Your task to perform on an android device: change text size in settings app Image 0: 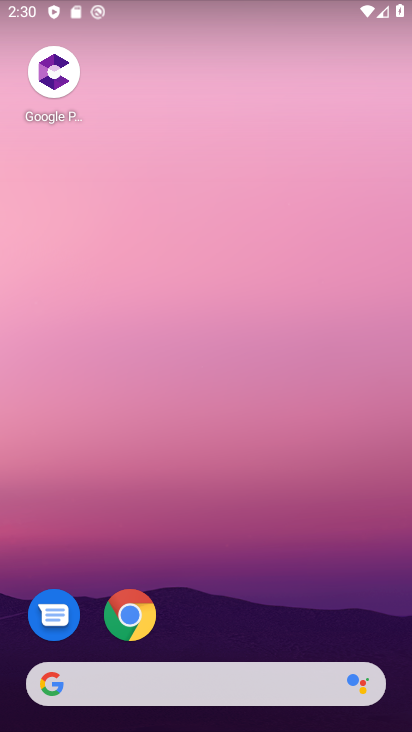
Step 0: drag from (233, 700) to (193, 197)
Your task to perform on an android device: change text size in settings app Image 1: 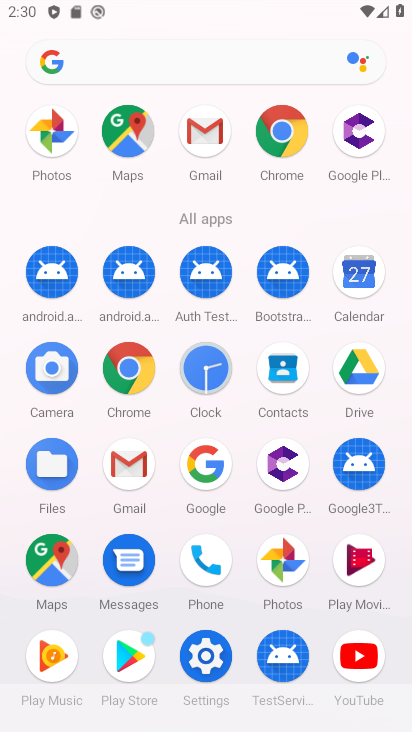
Step 1: click (202, 651)
Your task to perform on an android device: change text size in settings app Image 2: 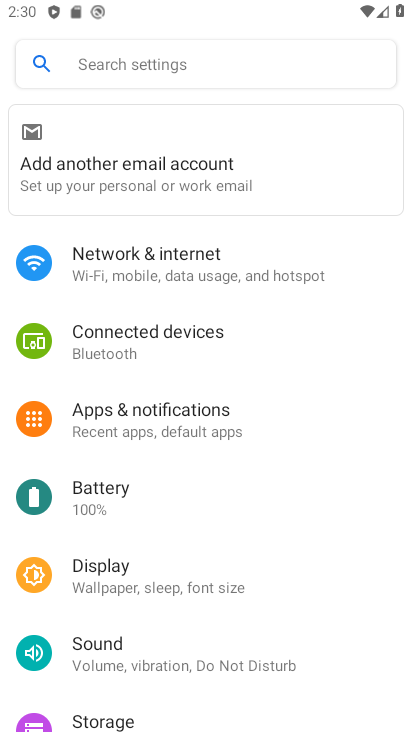
Step 2: click (145, 58)
Your task to perform on an android device: change text size in settings app Image 3: 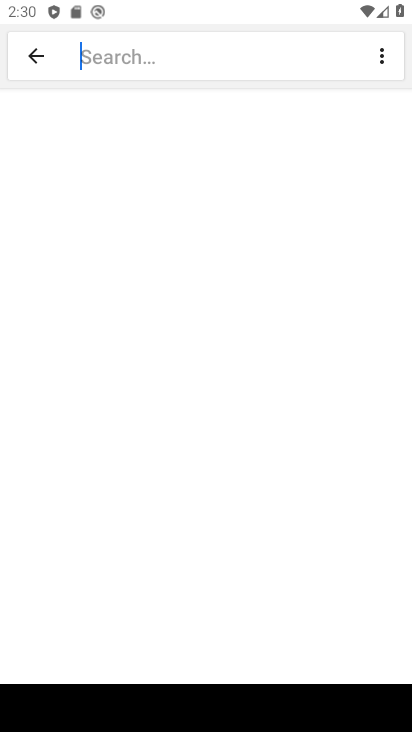
Step 3: drag from (383, 712) to (368, 523)
Your task to perform on an android device: change text size in settings app Image 4: 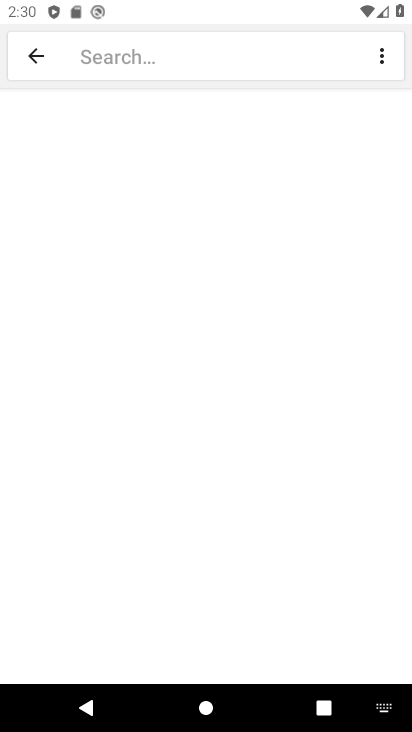
Step 4: click (383, 705)
Your task to perform on an android device: change text size in settings app Image 5: 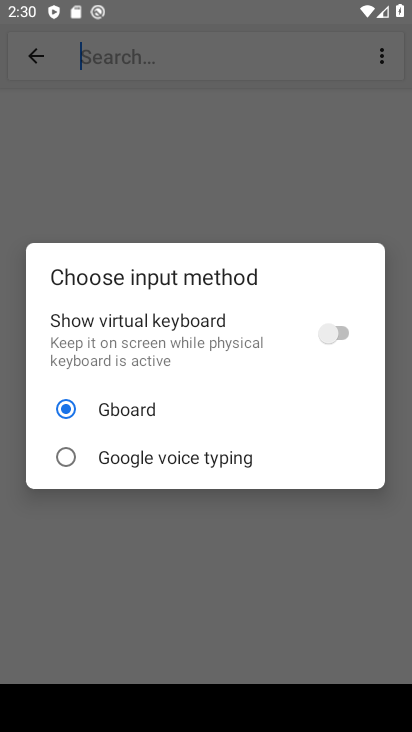
Step 5: click (330, 327)
Your task to perform on an android device: change text size in settings app Image 6: 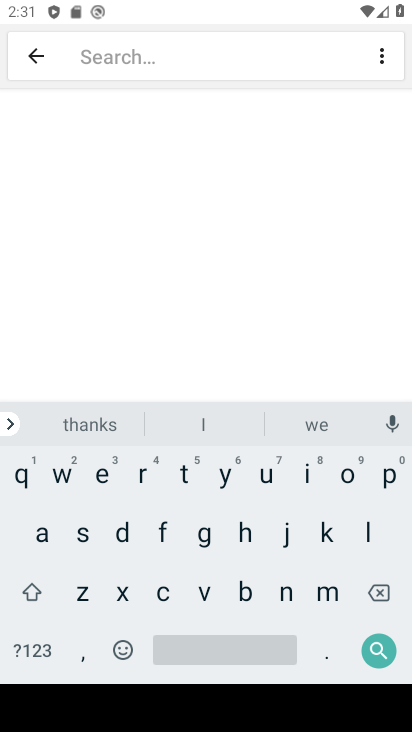
Step 6: click (89, 532)
Your task to perform on an android device: change text size in settings app Image 7: 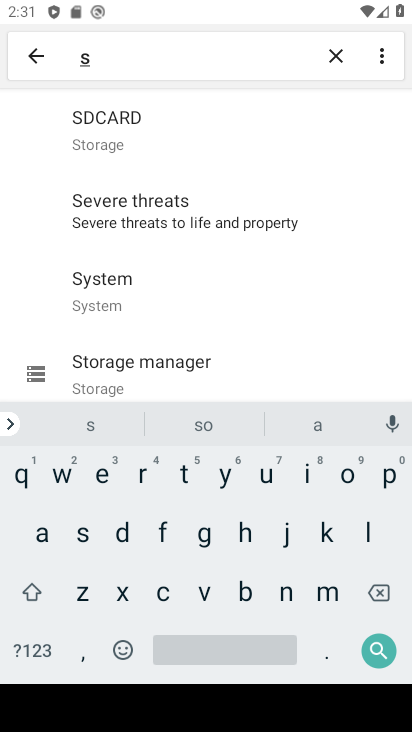
Step 7: click (306, 477)
Your task to perform on an android device: change text size in settings app Image 8: 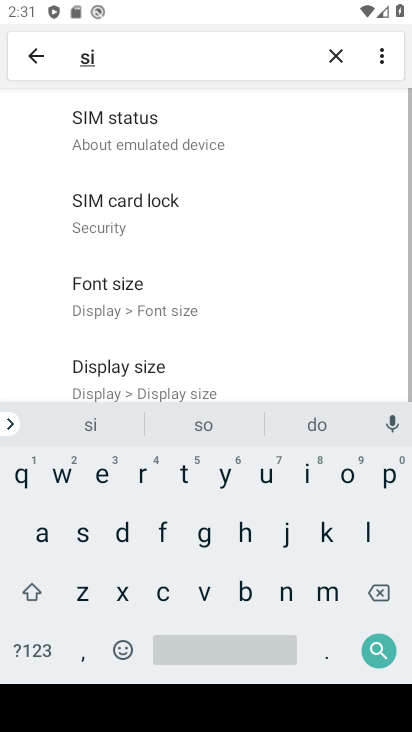
Step 8: click (79, 592)
Your task to perform on an android device: change text size in settings app Image 9: 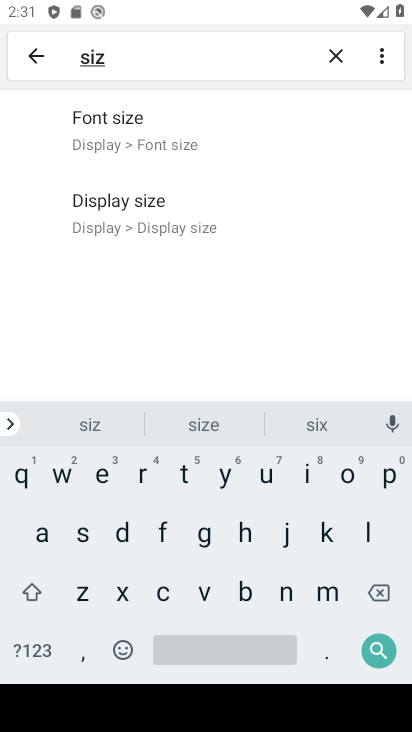
Step 9: click (144, 136)
Your task to perform on an android device: change text size in settings app Image 10: 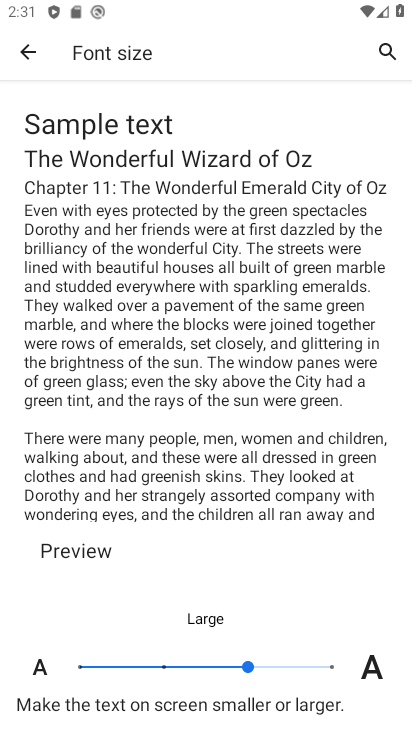
Step 10: click (324, 667)
Your task to perform on an android device: change text size in settings app Image 11: 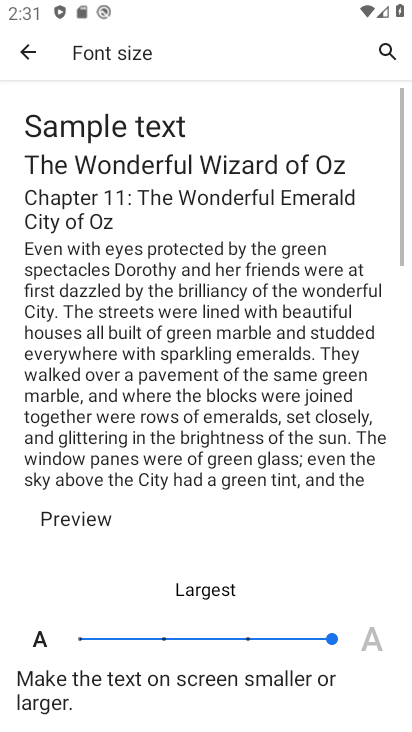
Step 11: task complete